Your task to perform on an android device: Open Google Chrome Image 0: 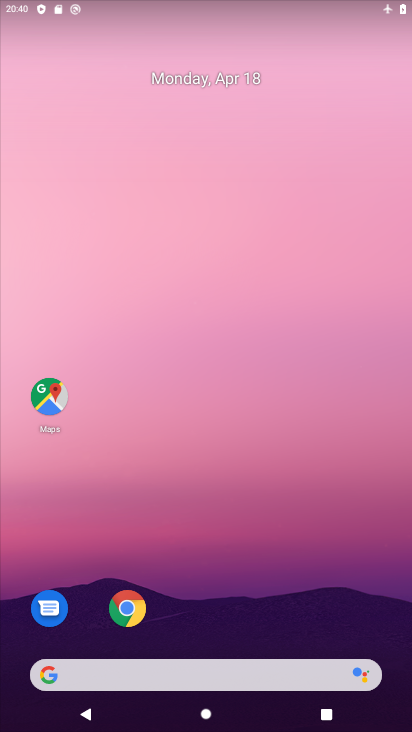
Step 0: drag from (173, 284) to (158, 69)
Your task to perform on an android device: Open Google Chrome Image 1: 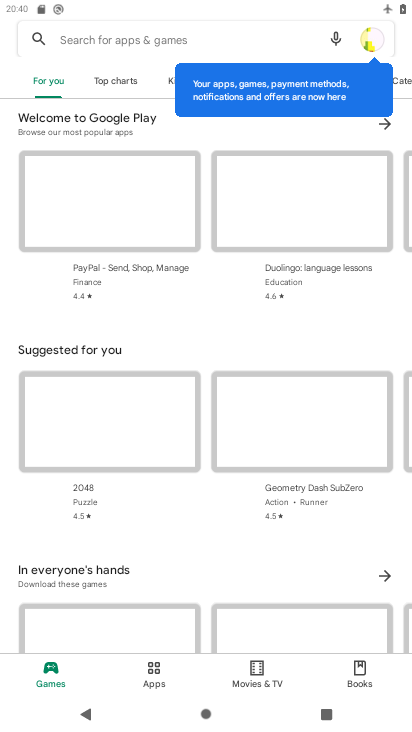
Step 1: press home button
Your task to perform on an android device: Open Google Chrome Image 2: 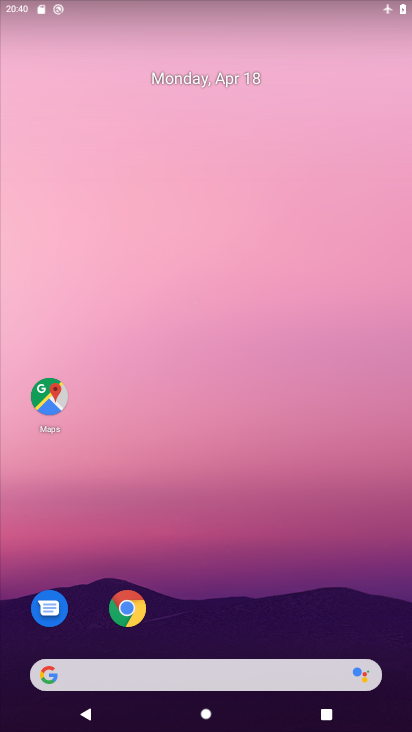
Step 2: click (127, 608)
Your task to perform on an android device: Open Google Chrome Image 3: 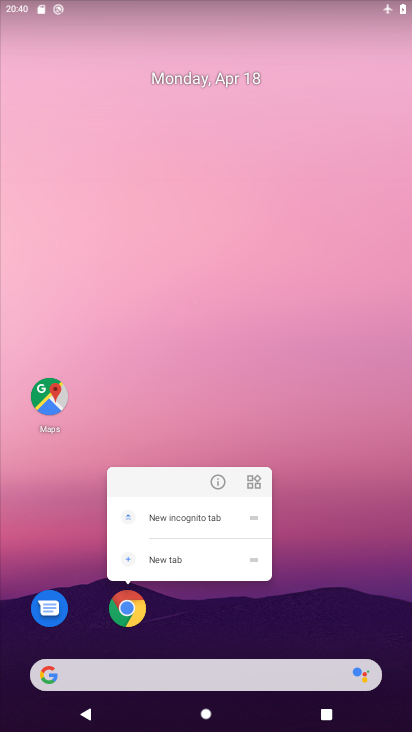
Step 3: click (127, 608)
Your task to perform on an android device: Open Google Chrome Image 4: 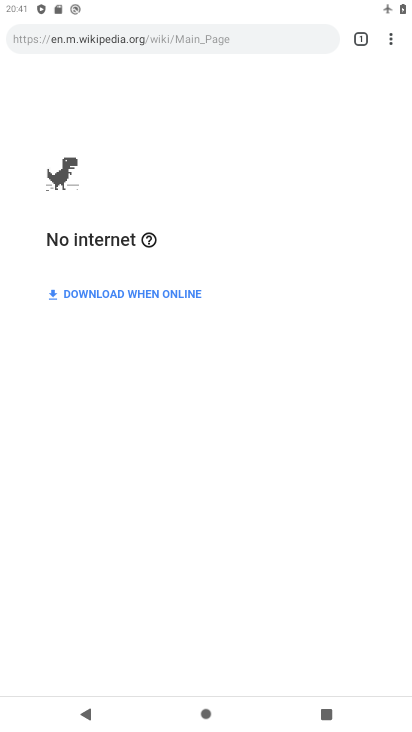
Step 4: task complete